Your task to perform on an android device: Go to Google maps Image 0: 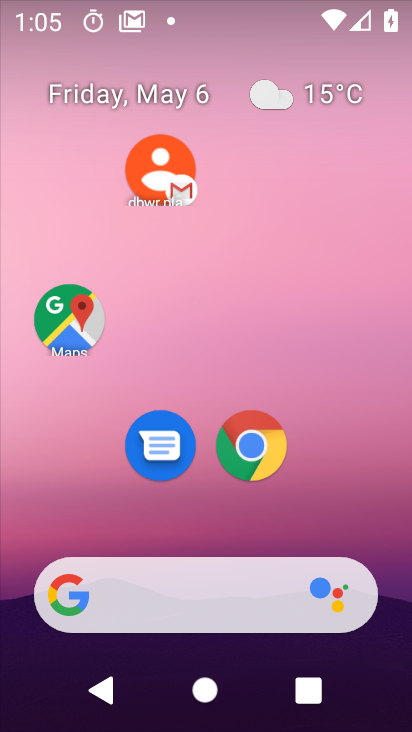
Step 0: drag from (257, 700) to (197, 222)
Your task to perform on an android device: Go to Google maps Image 1: 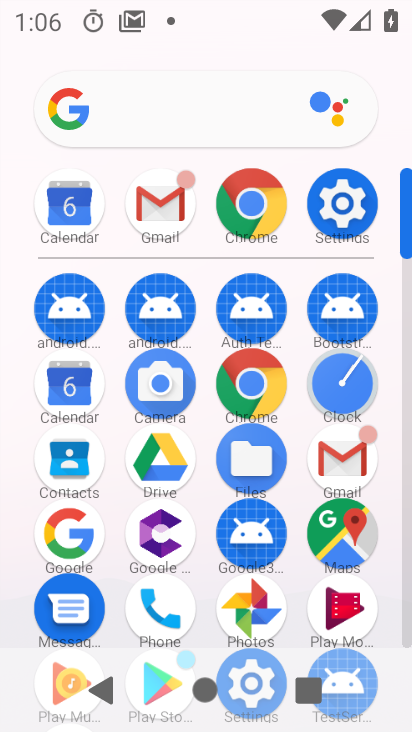
Step 1: click (349, 531)
Your task to perform on an android device: Go to Google maps Image 2: 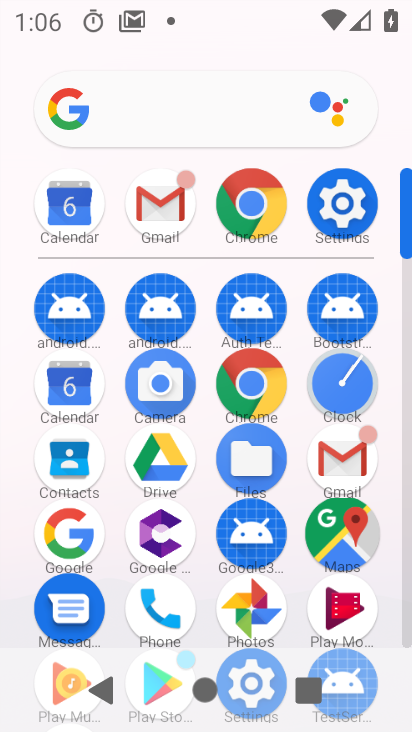
Step 2: click (348, 532)
Your task to perform on an android device: Go to Google maps Image 3: 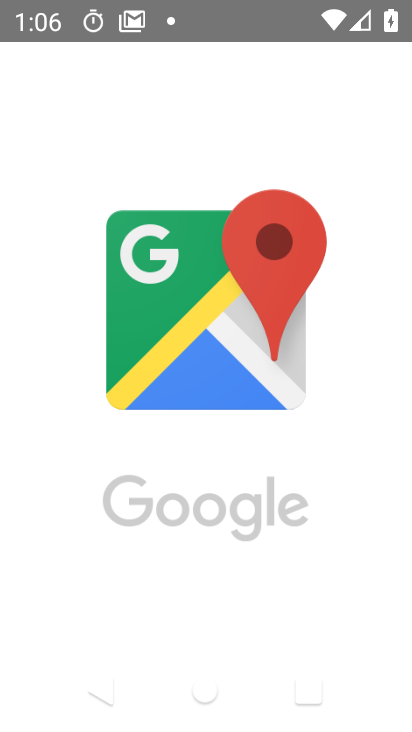
Step 3: click (348, 532)
Your task to perform on an android device: Go to Google maps Image 4: 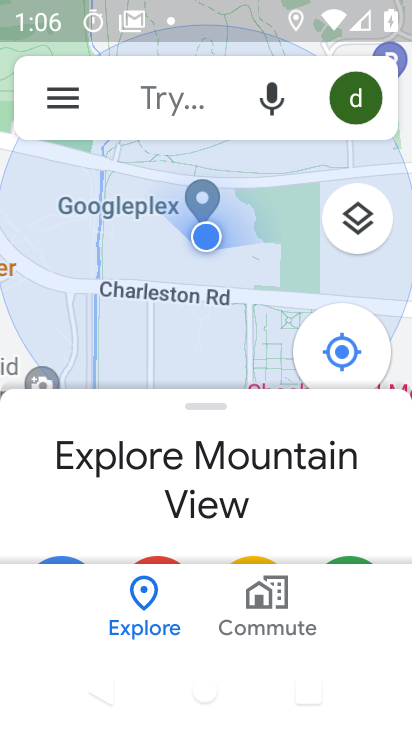
Step 4: task complete